Your task to perform on an android device: Open wifi settings Image 0: 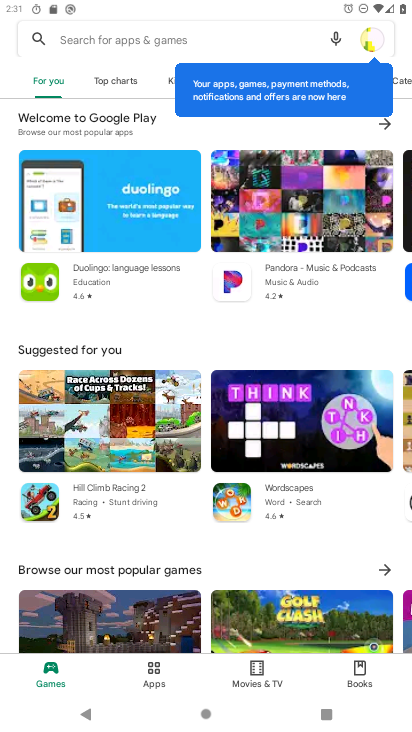
Step 0: press home button
Your task to perform on an android device: Open wifi settings Image 1: 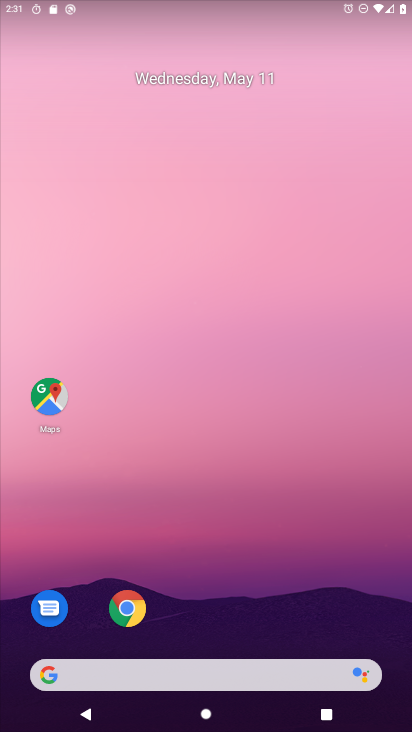
Step 1: drag from (212, 631) to (235, 154)
Your task to perform on an android device: Open wifi settings Image 2: 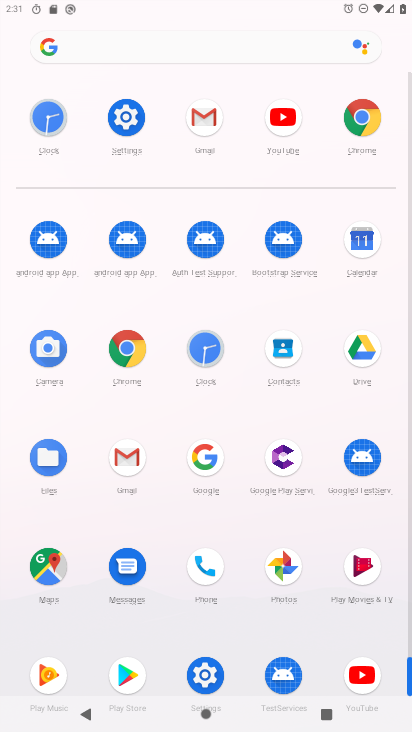
Step 2: click (129, 120)
Your task to perform on an android device: Open wifi settings Image 3: 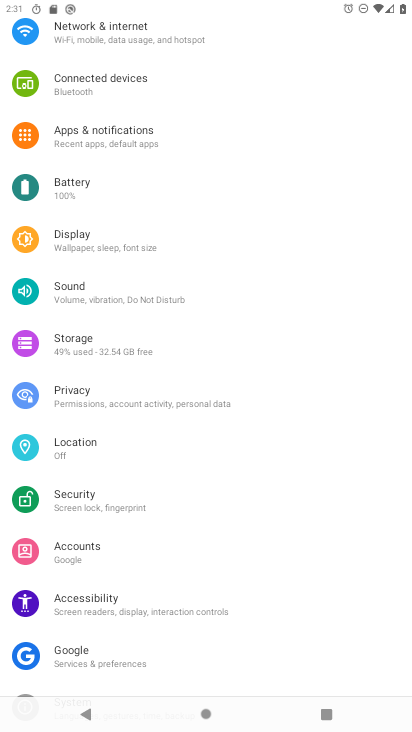
Step 3: drag from (185, 178) to (107, 723)
Your task to perform on an android device: Open wifi settings Image 4: 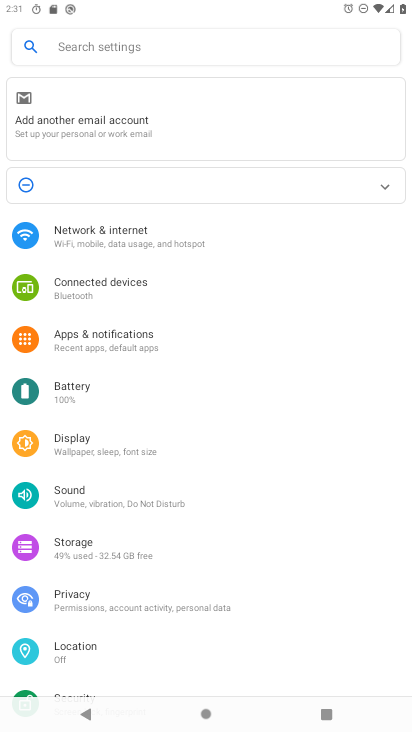
Step 4: click (184, 259)
Your task to perform on an android device: Open wifi settings Image 5: 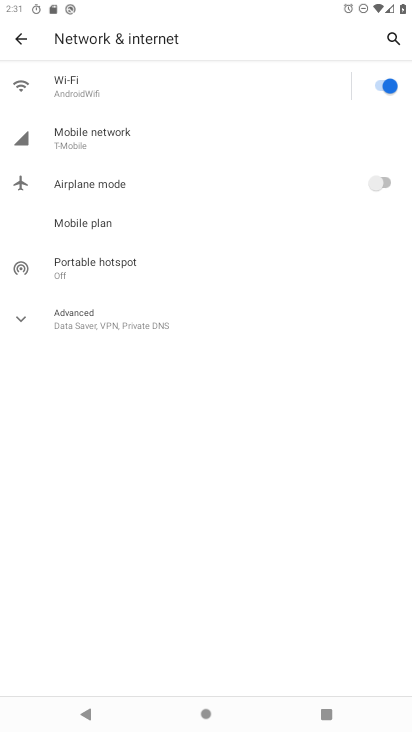
Step 5: click (97, 98)
Your task to perform on an android device: Open wifi settings Image 6: 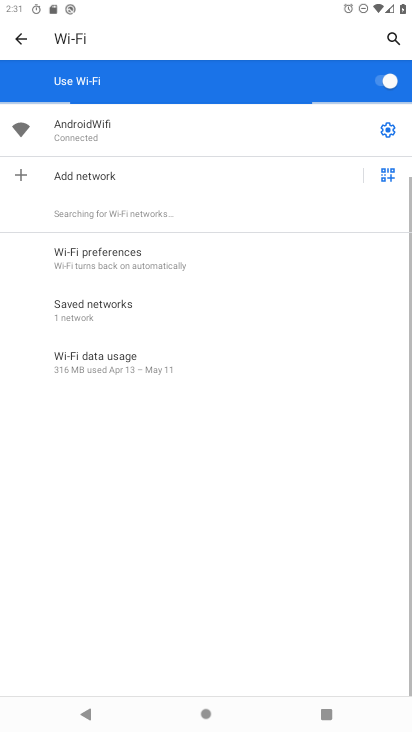
Step 6: task complete